Your task to perform on an android device: Go to display settings Image 0: 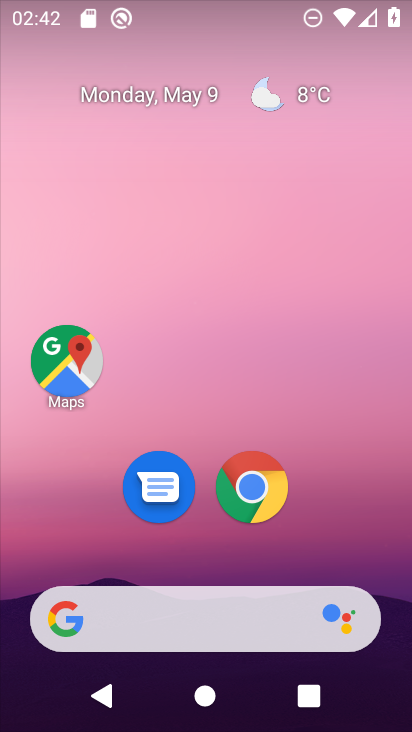
Step 0: click (266, 473)
Your task to perform on an android device: Go to display settings Image 1: 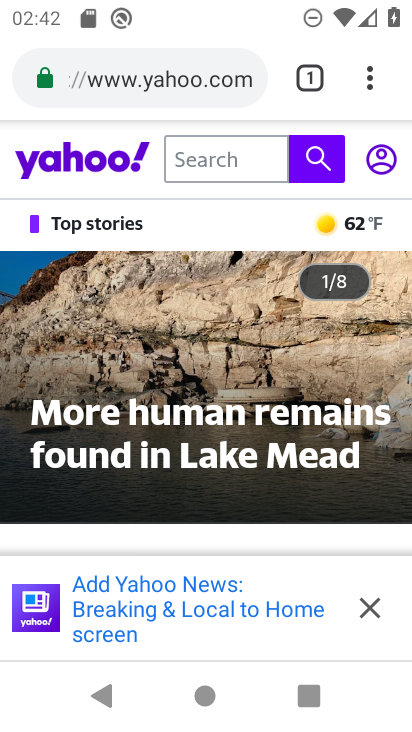
Step 1: press home button
Your task to perform on an android device: Go to display settings Image 2: 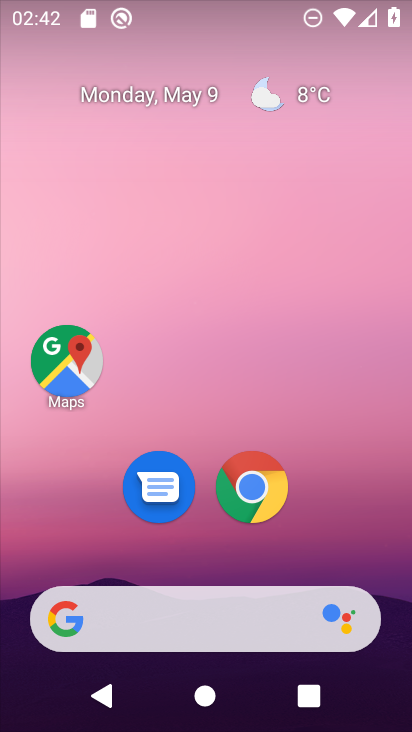
Step 2: drag from (307, 336) to (410, 0)
Your task to perform on an android device: Go to display settings Image 3: 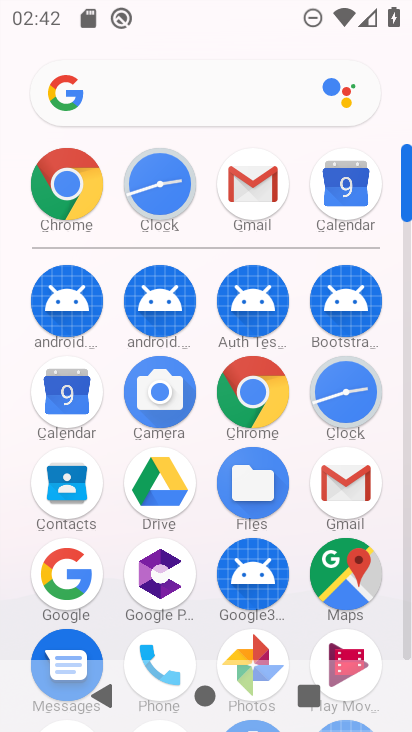
Step 3: drag from (287, 239) to (309, 52)
Your task to perform on an android device: Go to display settings Image 4: 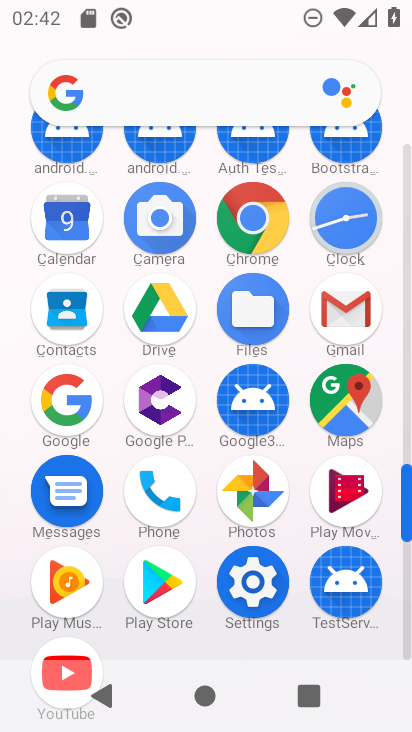
Step 4: click (261, 569)
Your task to perform on an android device: Go to display settings Image 5: 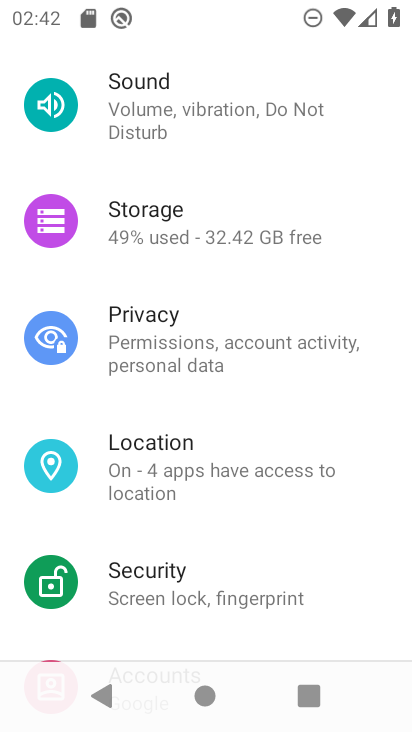
Step 5: drag from (279, 211) to (253, 422)
Your task to perform on an android device: Go to display settings Image 6: 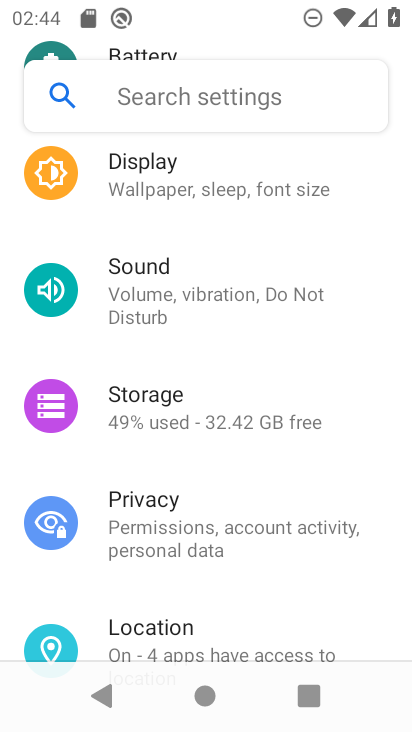
Step 6: drag from (236, 563) to (233, 316)
Your task to perform on an android device: Go to display settings Image 7: 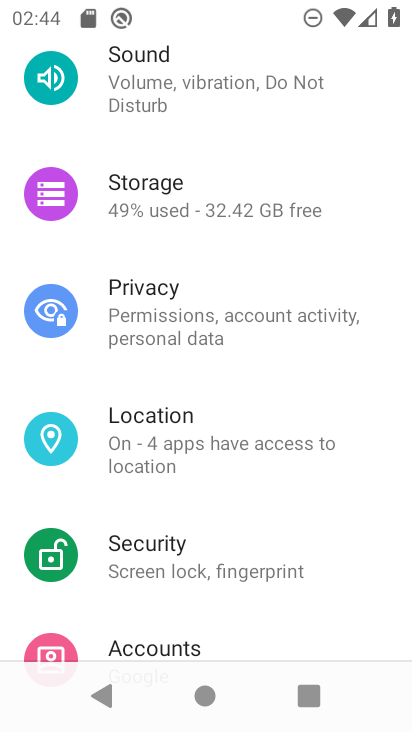
Step 7: drag from (212, 543) to (264, 573)
Your task to perform on an android device: Go to display settings Image 8: 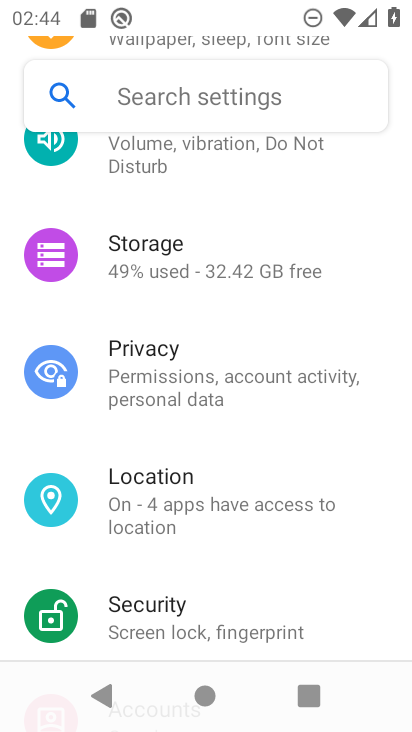
Step 8: drag from (271, 228) to (274, 142)
Your task to perform on an android device: Go to display settings Image 9: 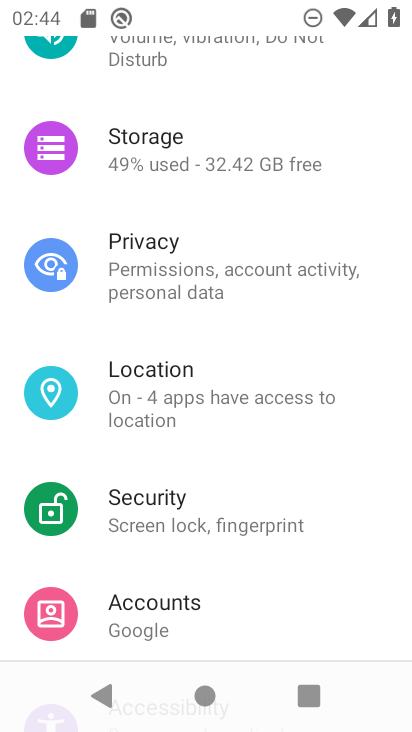
Step 9: drag from (237, 533) to (227, 107)
Your task to perform on an android device: Go to display settings Image 10: 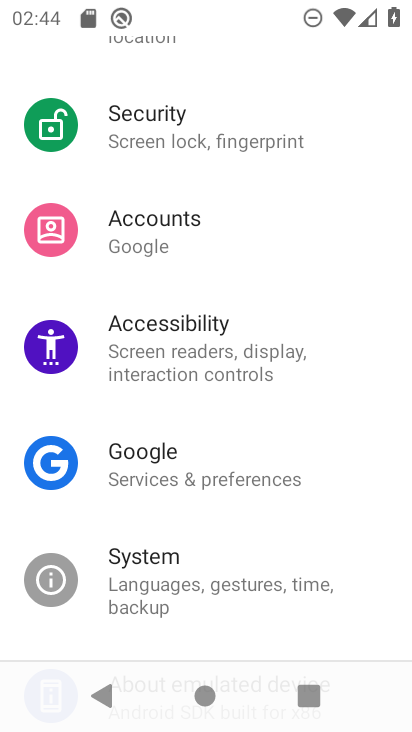
Step 10: drag from (162, 575) to (194, 229)
Your task to perform on an android device: Go to display settings Image 11: 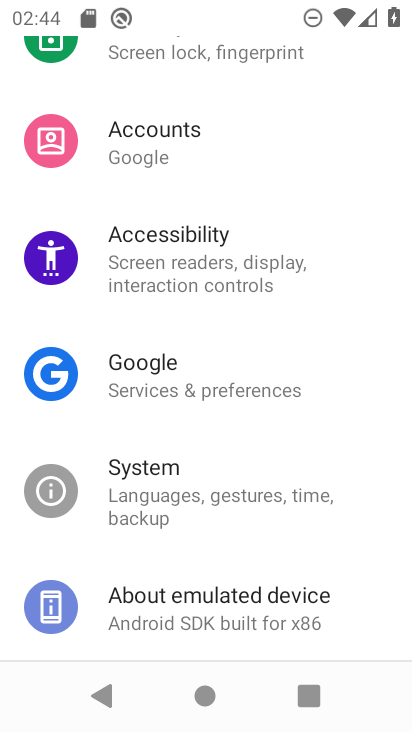
Step 11: drag from (216, 585) to (232, 335)
Your task to perform on an android device: Go to display settings Image 12: 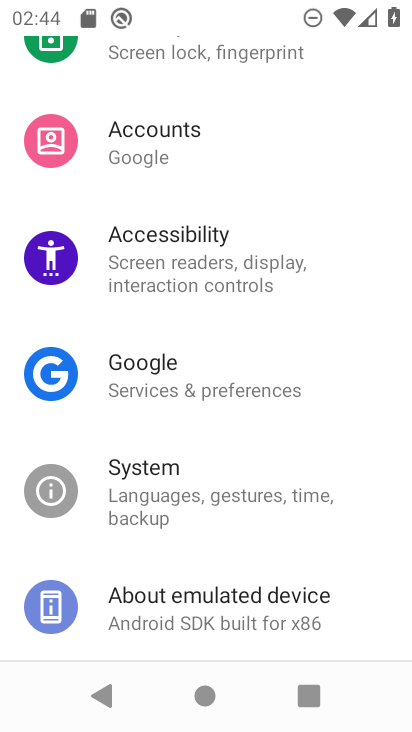
Step 12: drag from (242, 238) to (294, 606)
Your task to perform on an android device: Go to display settings Image 13: 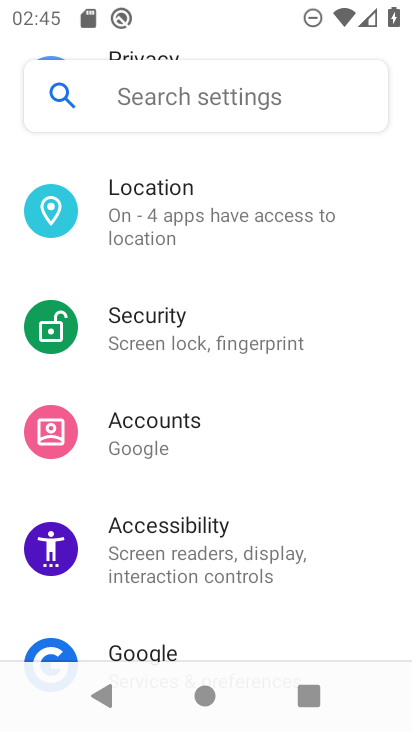
Step 13: drag from (237, 41) to (281, 356)
Your task to perform on an android device: Go to display settings Image 14: 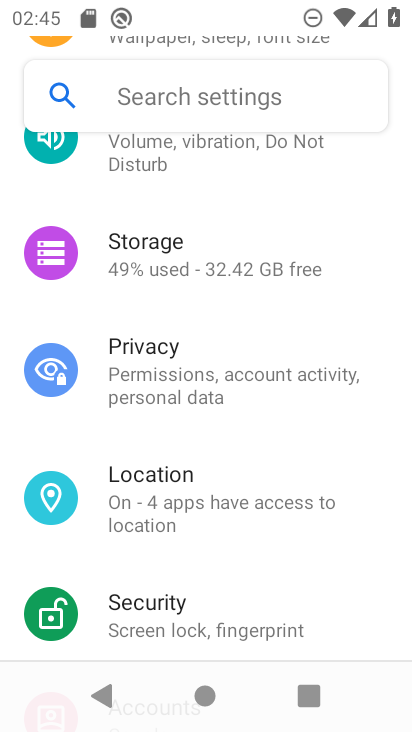
Step 14: drag from (280, 112) to (282, 253)
Your task to perform on an android device: Go to display settings Image 15: 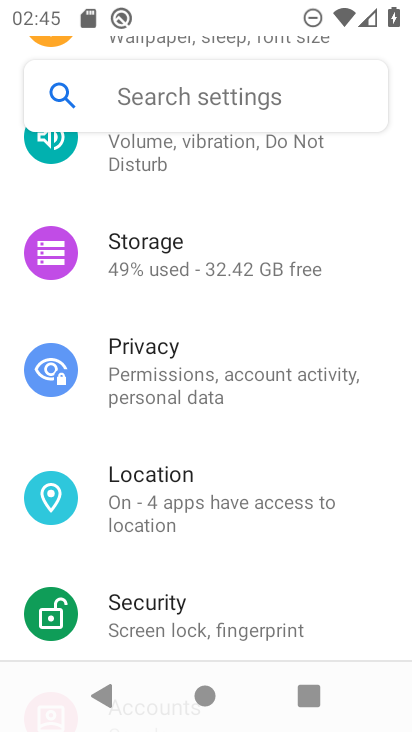
Step 15: drag from (282, 253) to (285, 457)
Your task to perform on an android device: Go to display settings Image 16: 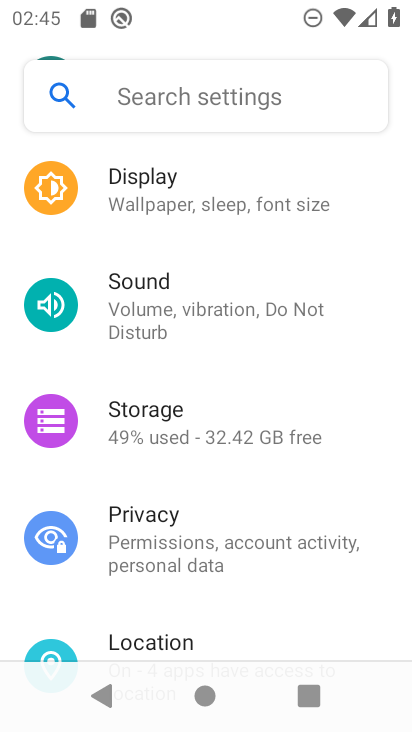
Step 16: click (262, 168)
Your task to perform on an android device: Go to display settings Image 17: 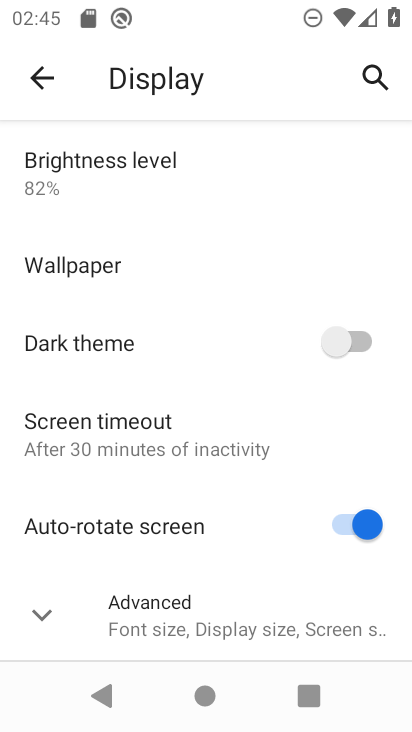
Step 17: task complete